Your task to perform on an android device: Search for vegetarian restaurants on Maps Image 0: 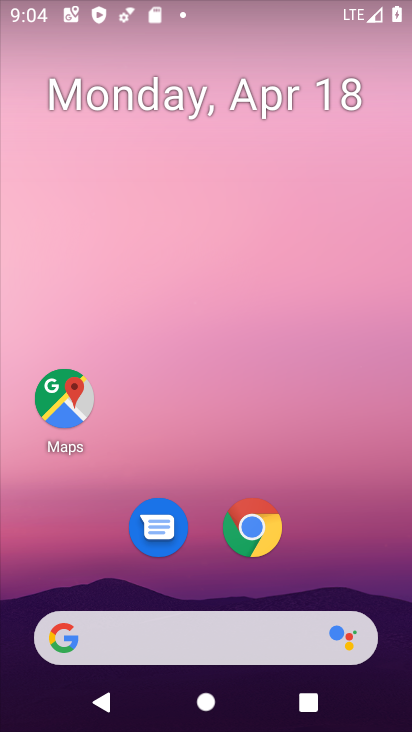
Step 0: drag from (258, 9) to (407, 366)
Your task to perform on an android device: Search for vegetarian restaurants on Maps Image 1: 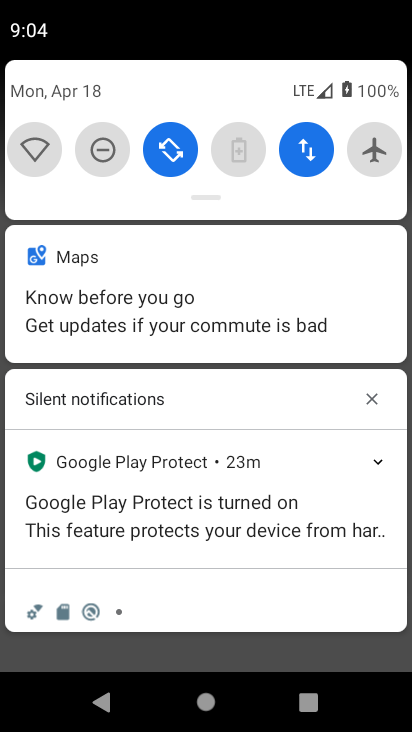
Step 1: press back button
Your task to perform on an android device: Search for vegetarian restaurants on Maps Image 2: 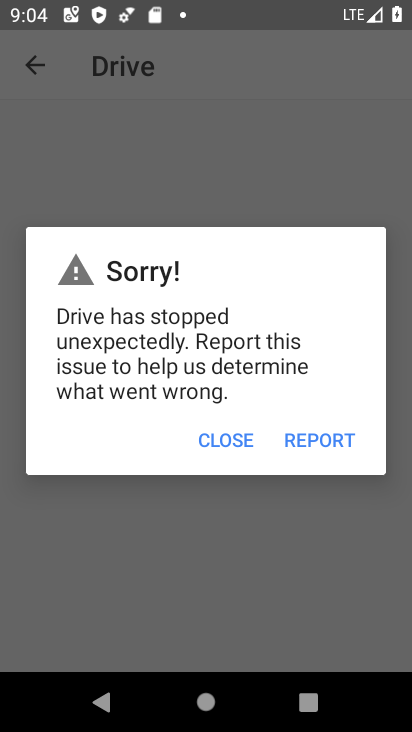
Step 2: press back button
Your task to perform on an android device: Search for vegetarian restaurants on Maps Image 3: 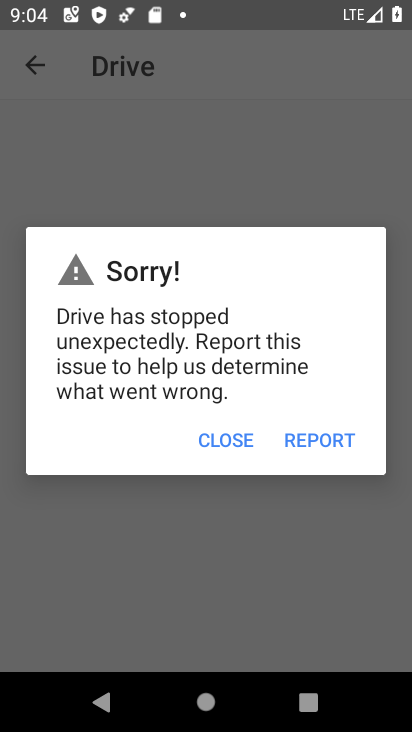
Step 3: press home button
Your task to perform on an android device: Search for vegetarian restaurants on Maps Image 4: 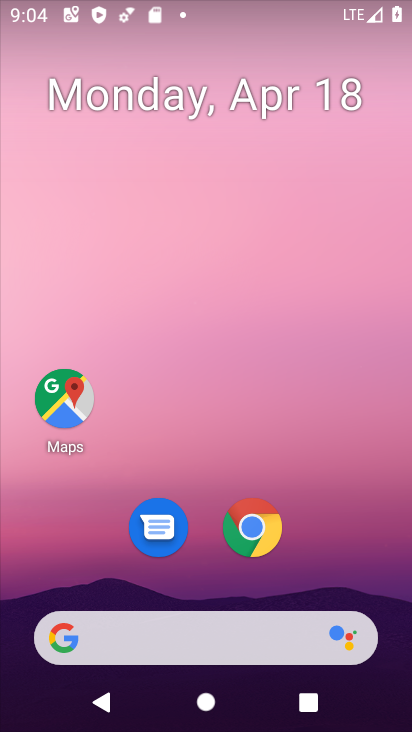
Step 4: click (67, 393)
Your task to perform on an android device: Search for vegetarian restaurants on Maps Image 5: 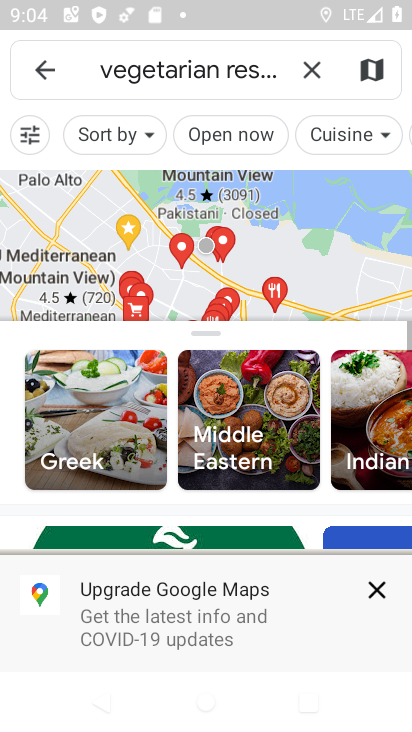
Step 5: click (307, 63)
Your task to perform on an android device: Search for vegetarian restaurants on Maps Image 6: 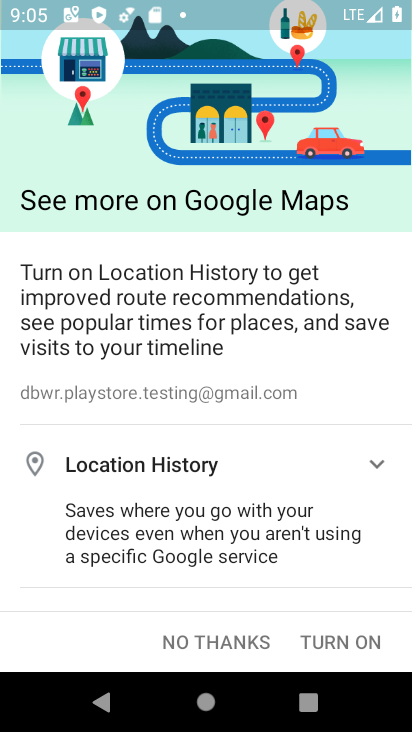
Step 6: click (344, 639)
Your task to perform on an android device: Search for vegetarian restaurants on Maps Image 7: 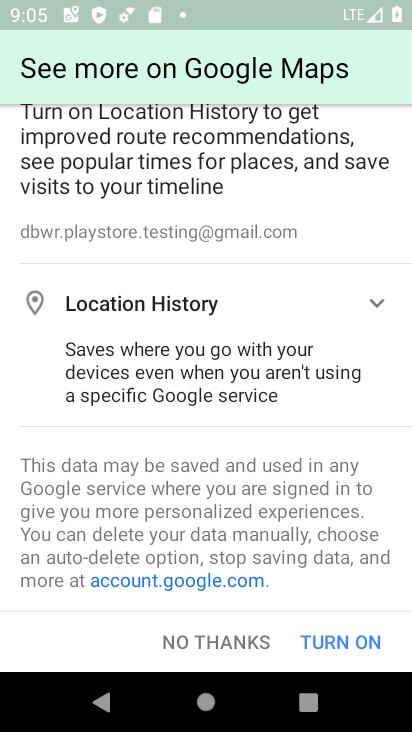
Step 7: click (344, 639)
Your task to perform on an android device: Search for vegetarian restaurants on Maps Image 8: 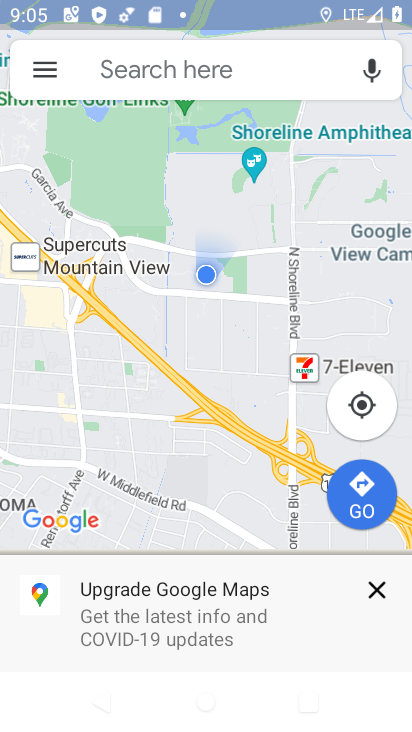
Step 8: click (241, 67)
Your task to perform on an android device: Search for vegetarian restaurants on Maps Image 9: 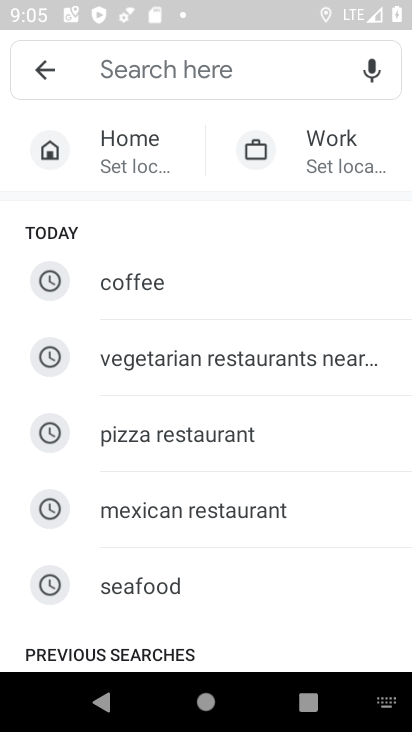
Step 9: click (268, 363)
Your task to perform on an android device: Search for vegetarian restaurants on Maps Image 10: 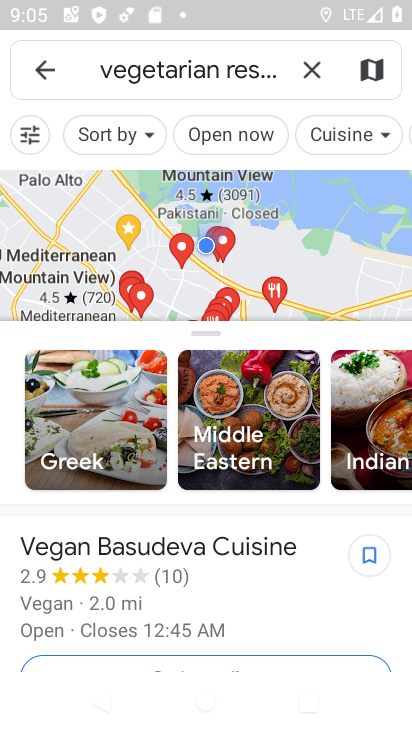
Step 10: task complete